Your task to perform on an android device: Toggle the flashlight Image 0: 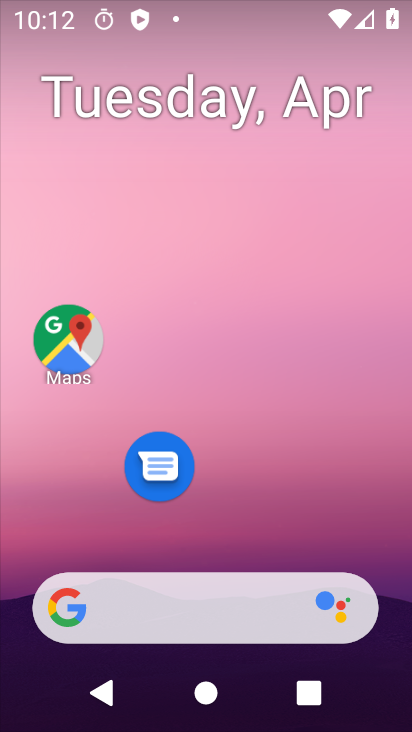
Step 0: drag from (290, 534) to (244, 136)
Your task to perform on an android device: Toggle the flashlight Image 1: 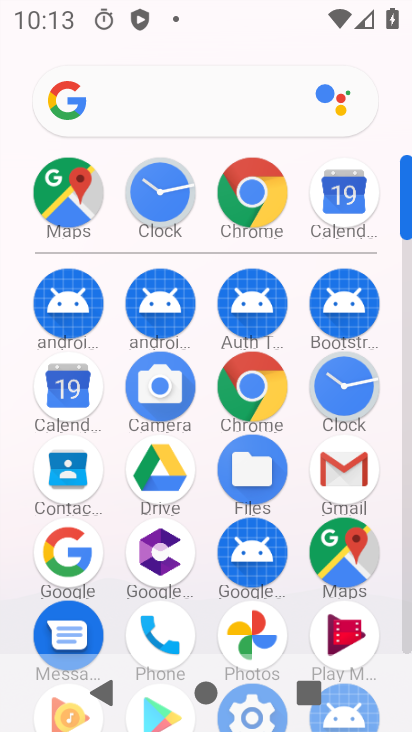
Step 1: click (407, 359)
Your task to perform on an android device: Toggle the flashlight Image 2: 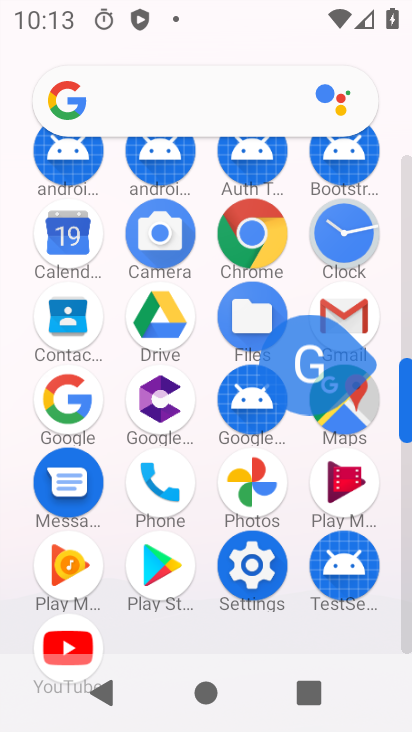
Step 2: click (407, 359)
Your task to perform on an android device: Toggle the flashlight Image 3: 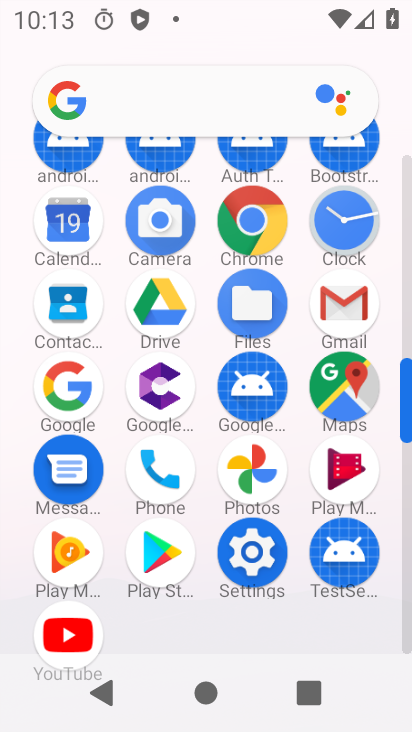
Step 3: click (254, 559)
Your task to perform on an android device: Toggle the flashlight Image 4: 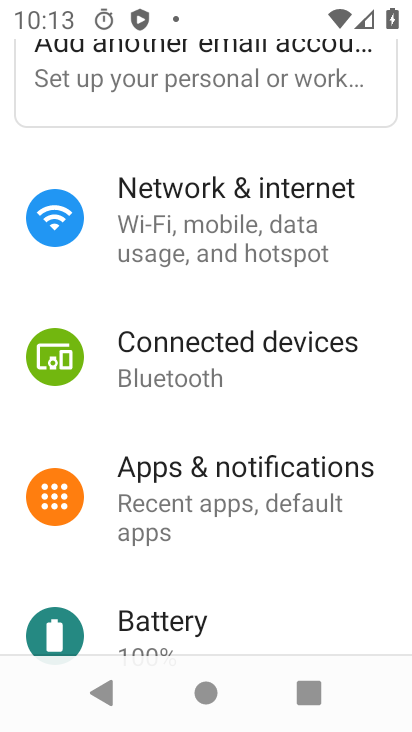
Step 4: task complete